Your task to perform on an android device: toggle data saver in the chrome app Image 0: 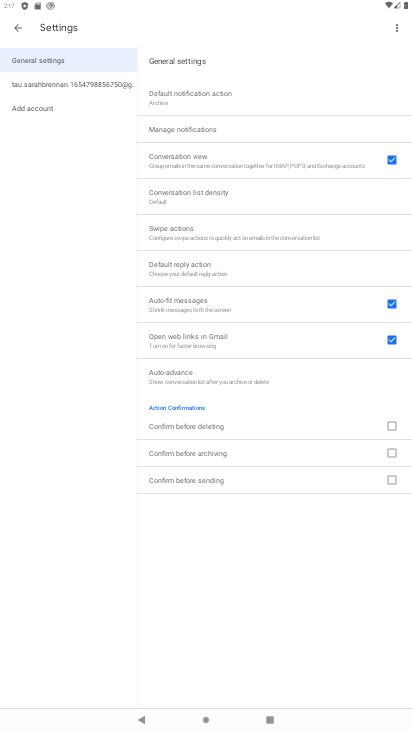
Step 0: press home button
Your task to perform on an android device: toggle data saver in the chrome app Image 1: 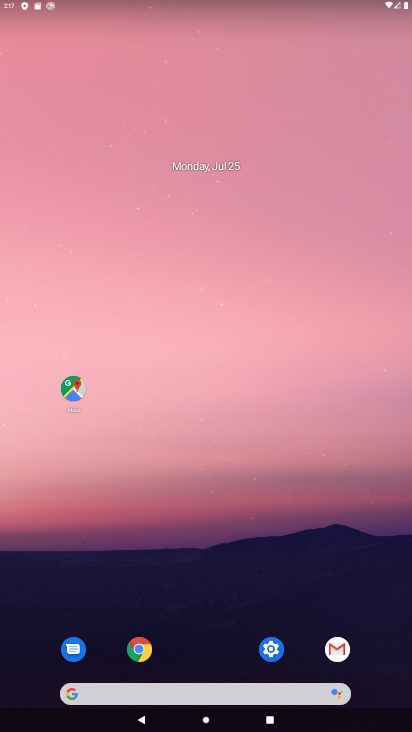
Step 1: click (141, 650)
Your task to perform on an android device: toggle data saver in the chrome app Image 2: 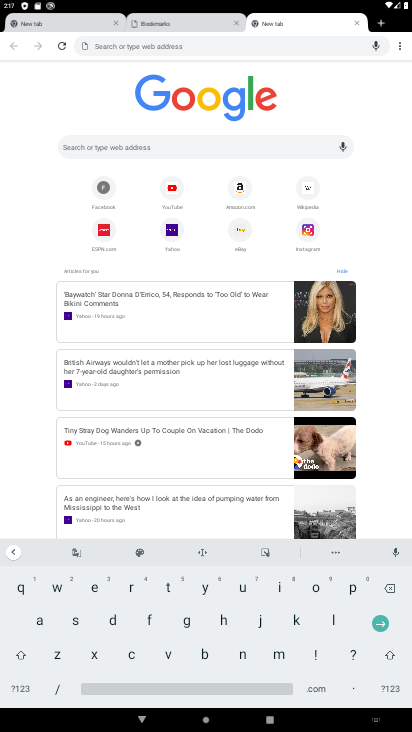
Step 2: click (405, 50)
Your task to perform on an android device: toggle data saver in the chrome app Image 3: 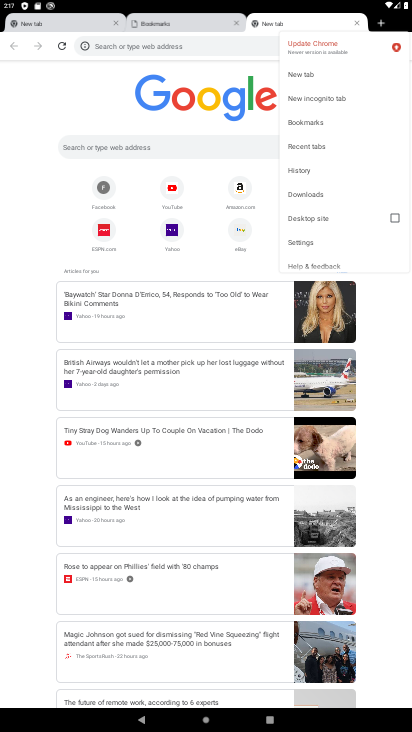
Step 3: click (307, 238)
Your task to perform on an android device: toggle data saver in the chrome app Image 4: 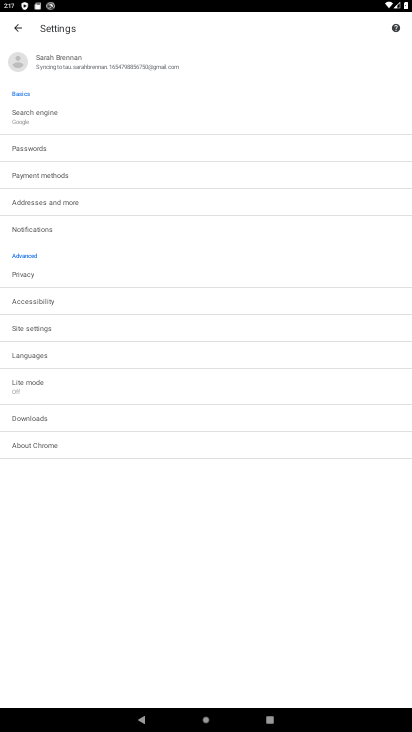
Step 4: click (30, 379)
Your task to perform on an android device: toggle data saver in the chrome app Image 5: 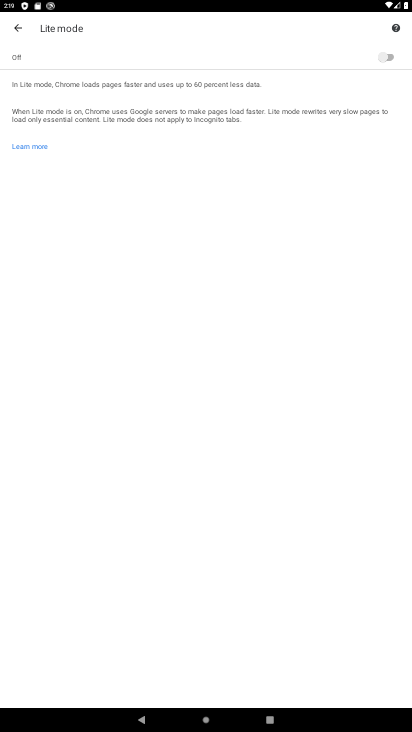
Step 5: task complete